Your task to perform on an android device: Open Chrome and go to settings Image 0: 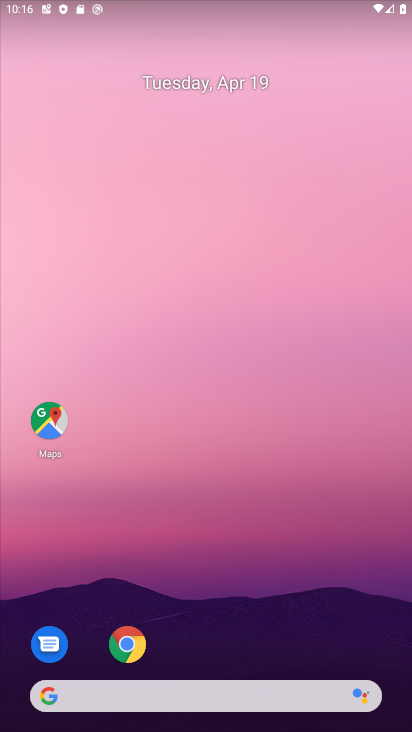
Step 0: click (127, 639)
Your task to perform on an android device: Open Chrome and go to settings Image 1: 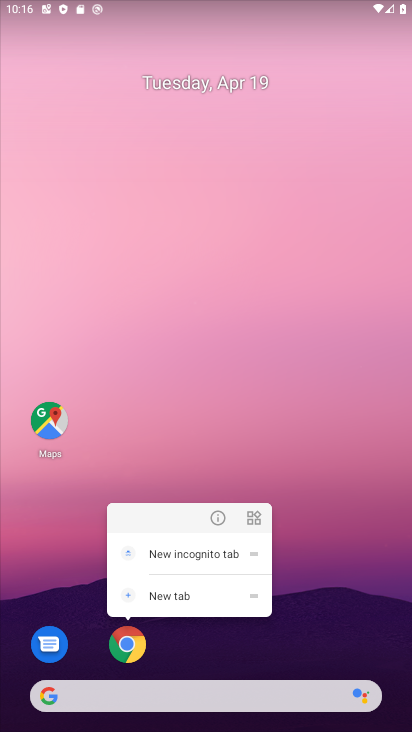
Step 1: click (127, 638)
Your task to perform on an android device: Open Chrome and go to settings Image 2: 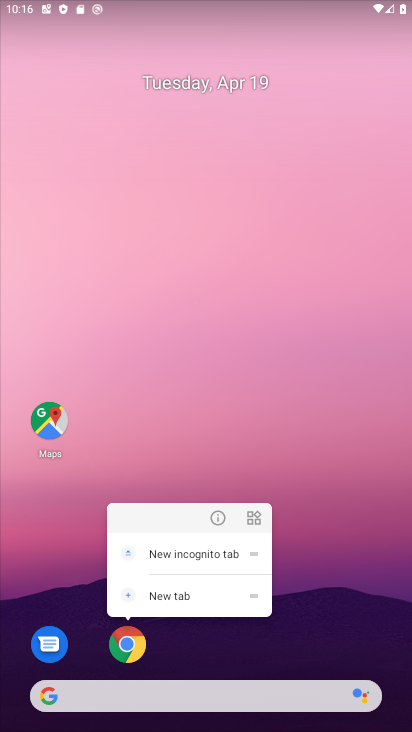
Step 2: click (127, 639)
Your task to perform on an android device: Open Chrome and go to settings Image 3: 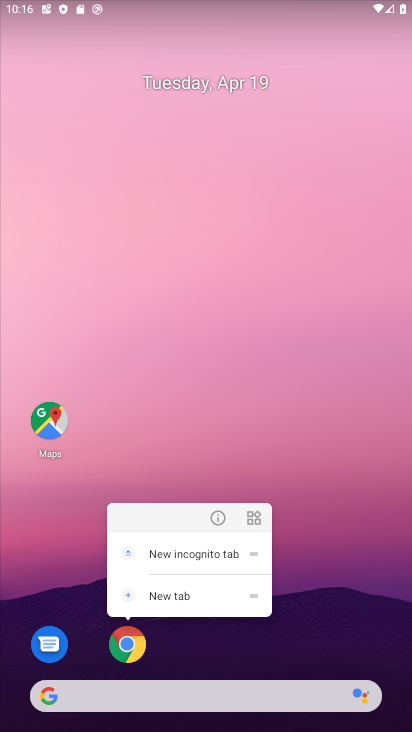
Step 3: click (127, 639)
Your task to perform on an android device: Open Chrome and go to settings Image 4: 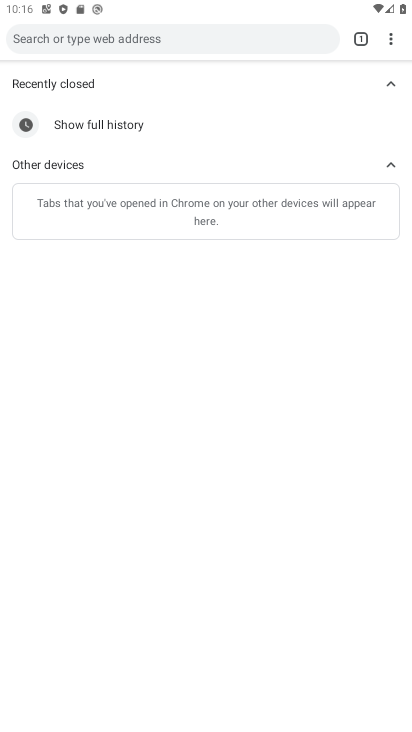
Step 4: click (398, 36)
Your task to perform on an android device: Open Chrome and go to settings Image 5: 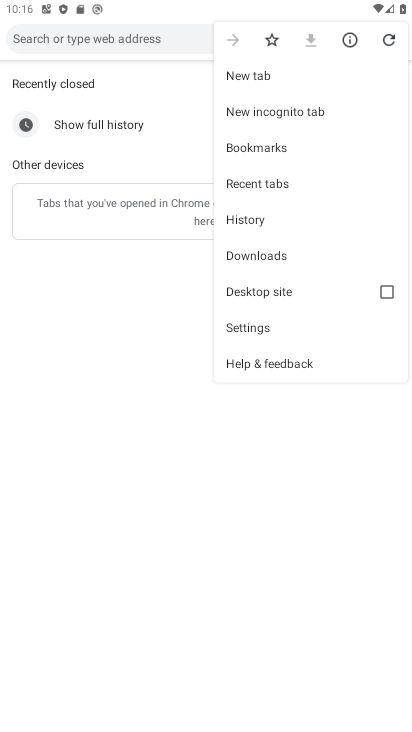
Step 5: click (282, 319)
Your task to perform on an android device: Open Chrome and go to settings Image 6: 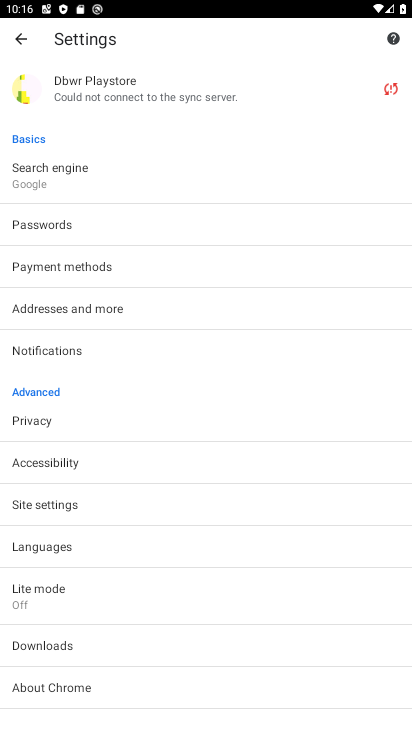
Step 6: task complete